Your task to perform on an android device: Go to privacy settings Image 0: 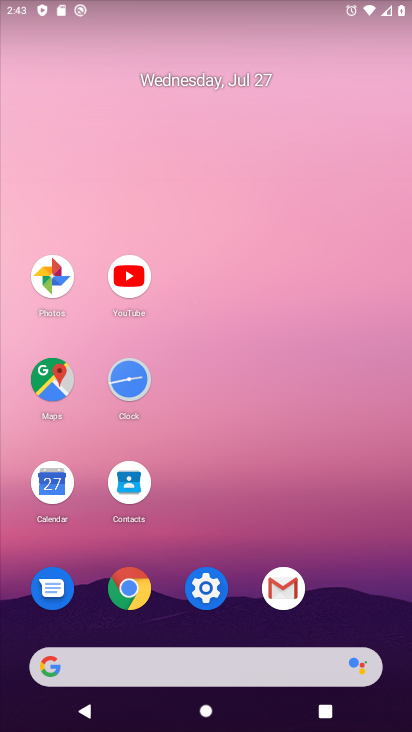
Step 0: click (200, 593)
Your task to perform on an android device: Go to privacy settings Image 1: 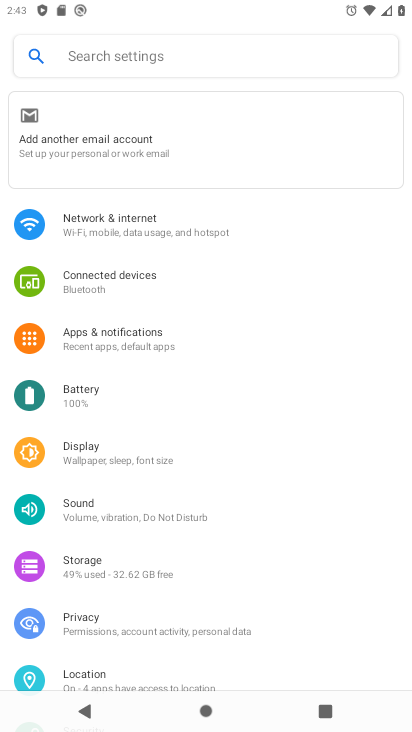
Step 1: click (86, 623)
Your task to perform on an android device: Go to privacy settings Image 2: 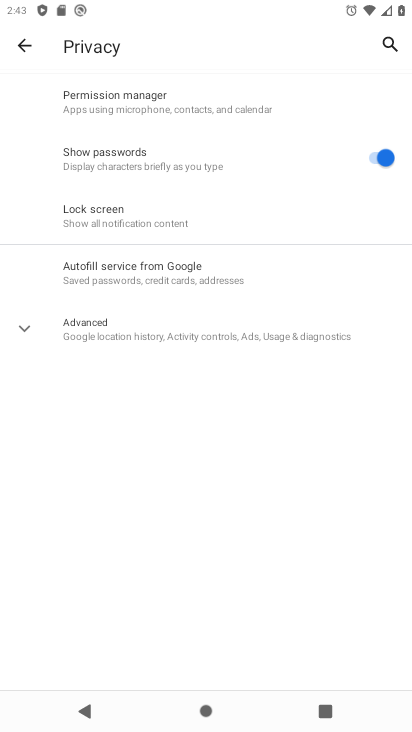
Step 2: task complete